Your task to perform on an android device: delete the emails in spam in the gmail app Image 0: 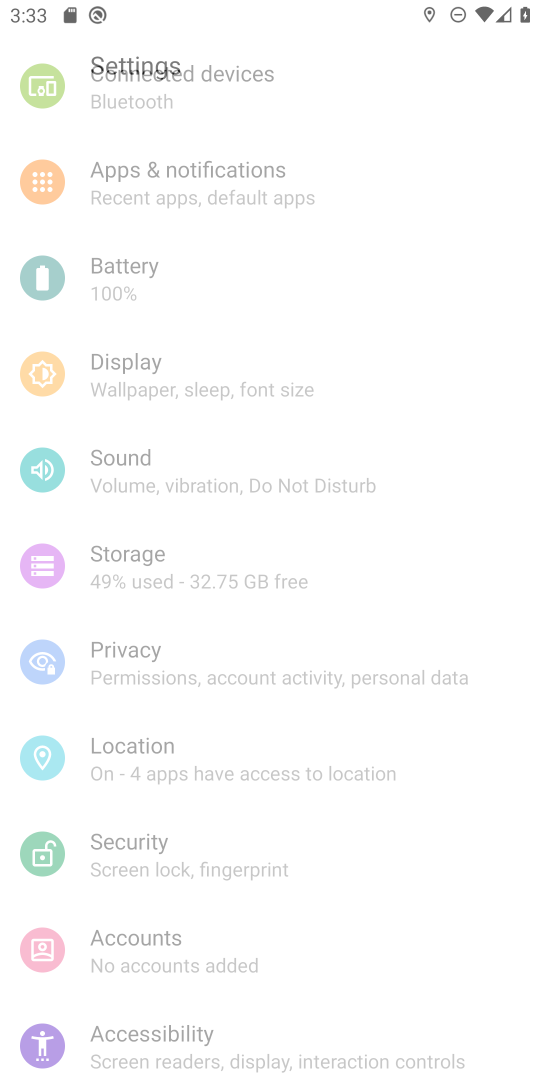
Step 0: press home button
Your task to perform on an android device: delete the emails in spam in the gmail app Image 1: 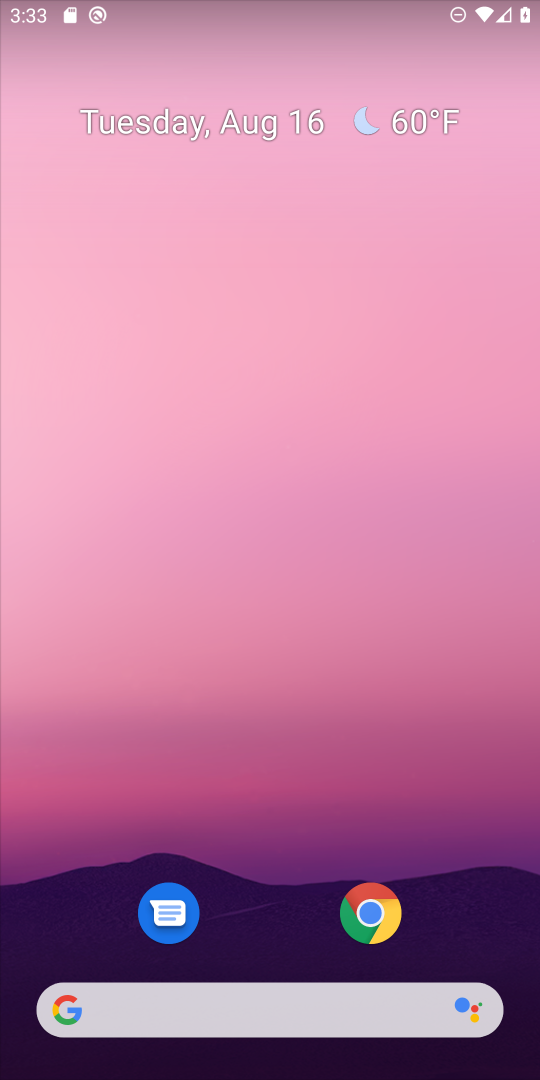
Step 1: drag from (505, 955) to (422, 265)
Your task to perform on an android device: delete the emails in spam in the gmail app Image 2: 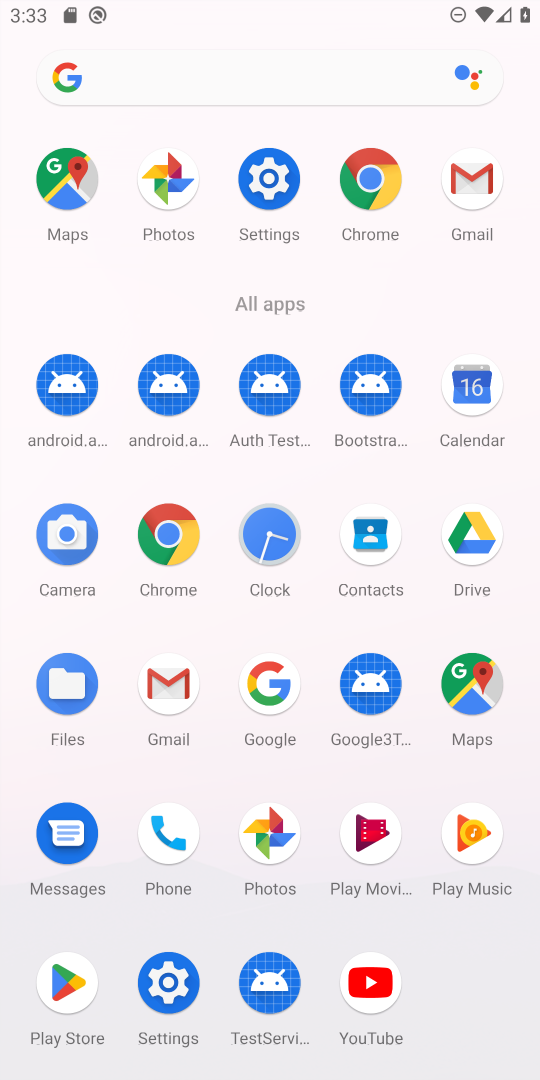
Step 2: click (169, 680)
Your task to perform on an android device: delete the emails in spam in the gmail app Image 3: 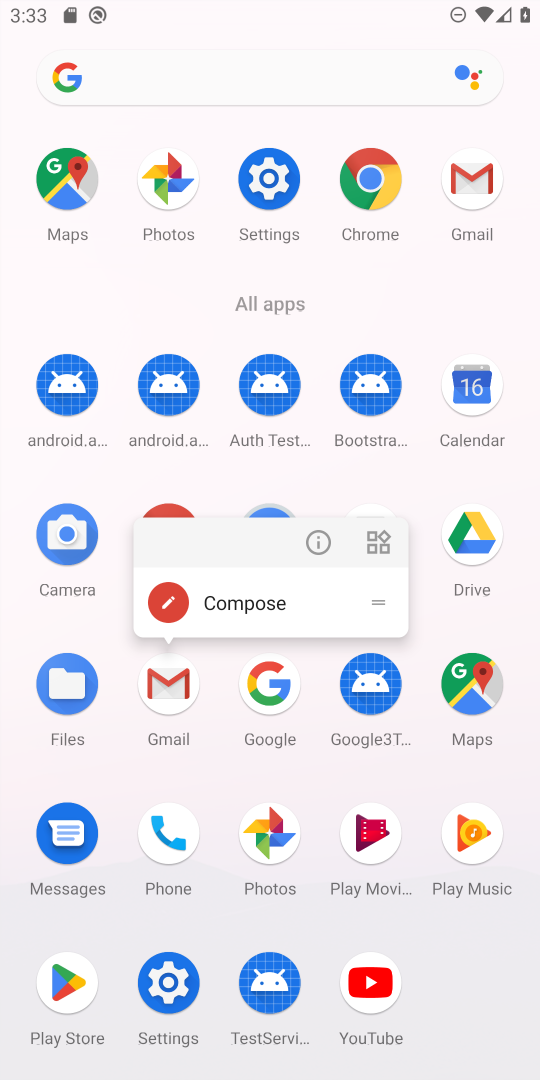
Step 3: click (169, 680)
Your task to perform on an android device: delete the emails in spam in the gmail app Image 4: 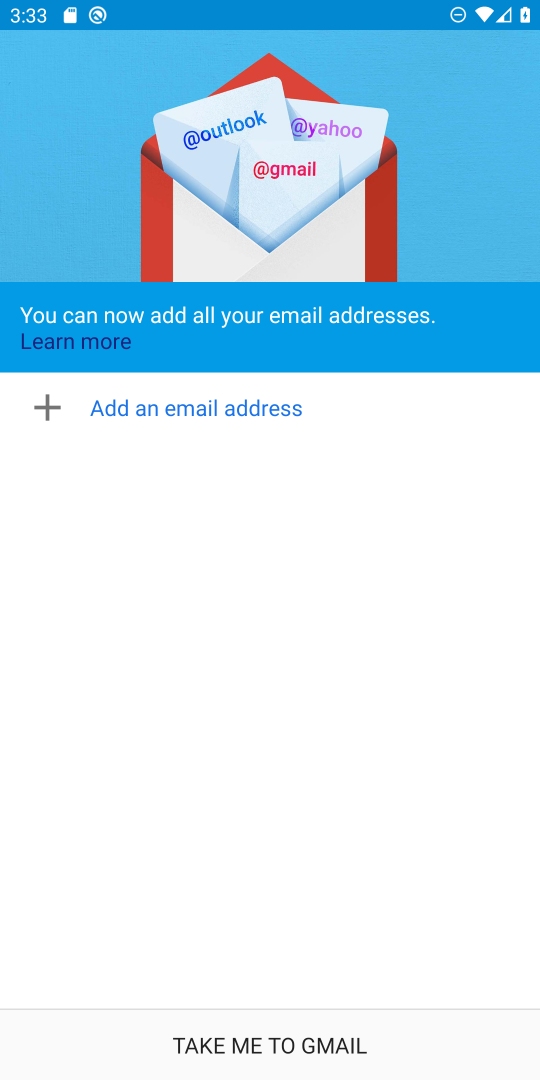
Step 4: click (275, 1052)
Your task to perform on an android device: delete the emails in spam in the gmail app Image 5: 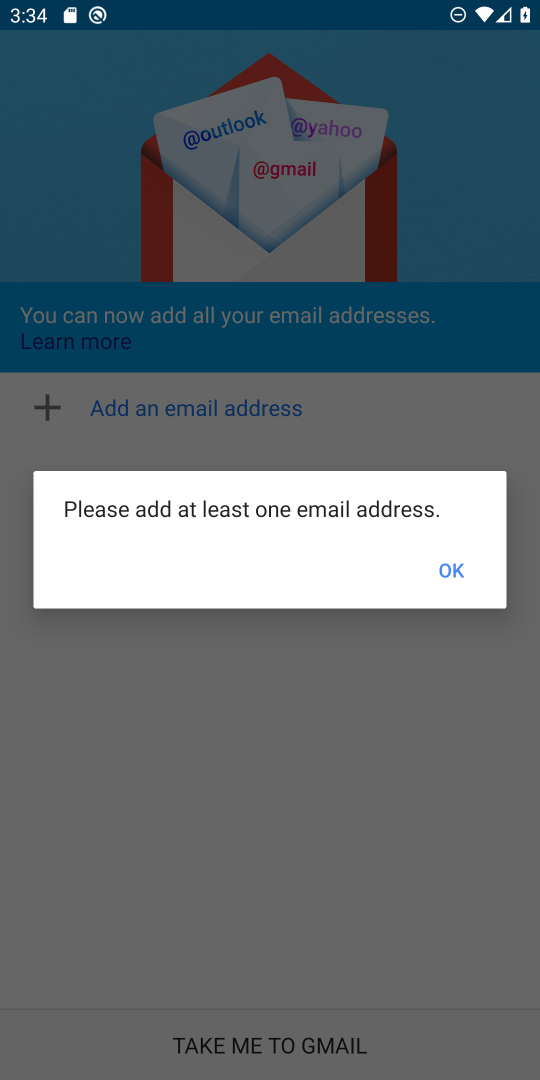
Step 5: click (454, 572)
Your task to perform on an android device: delete the emails in spam in the gmail app Image 6: 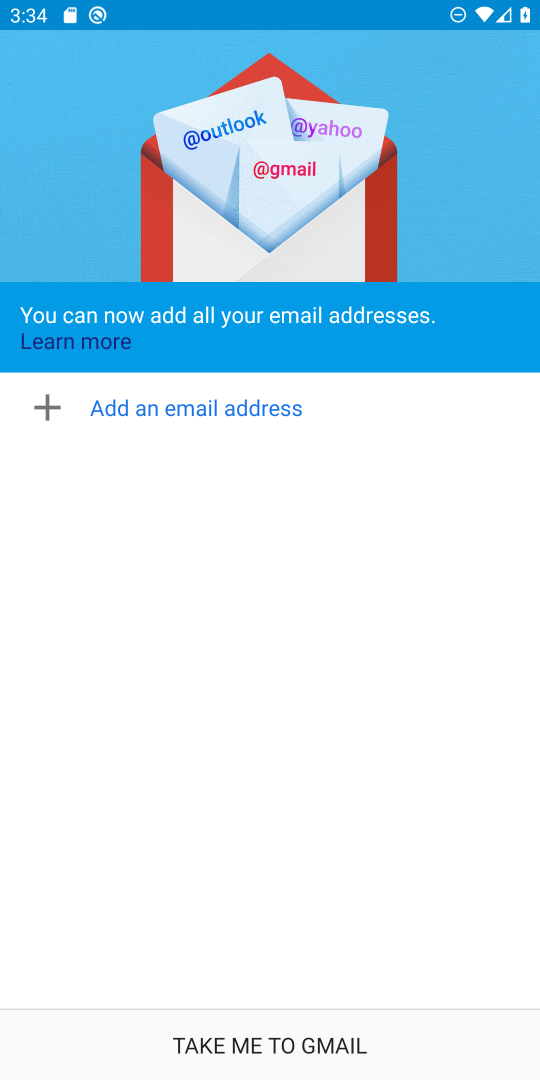
Step 6: click (275, 1035)
Your task to perform on an android device: delete the emails in spam in the gmail app Image 7: 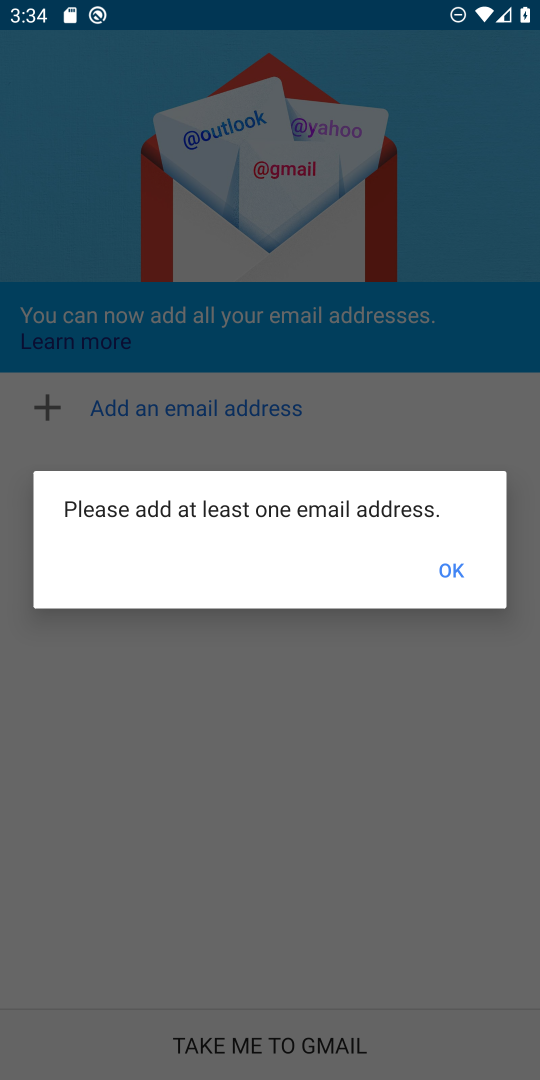
Step 7: click (450, 570)
Your task to perform on an android device: delete the emails in spam in the gmail app Image 8: 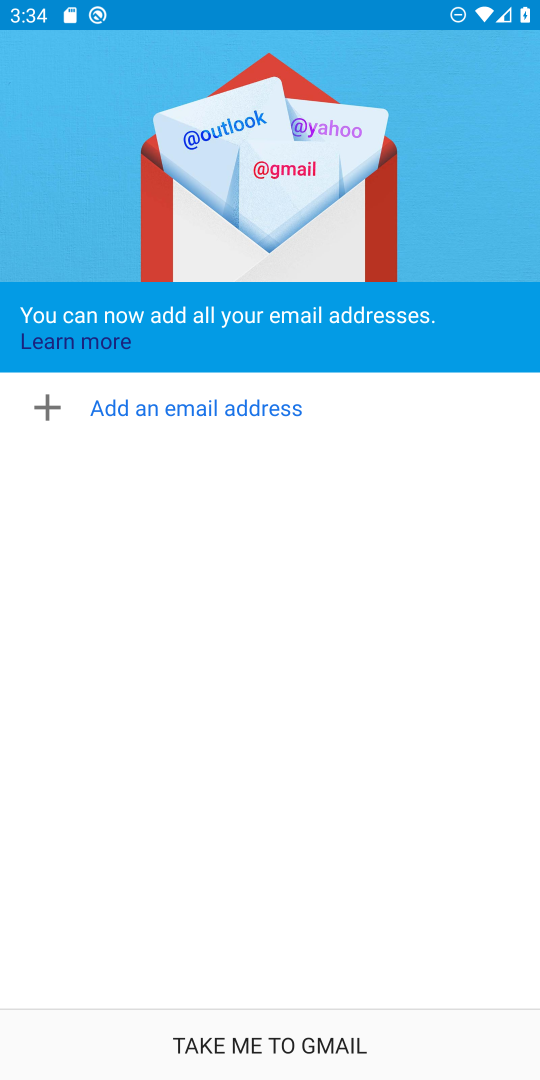
Step 8: task complete